Your task to perform on an android device: toggle notifications settings in the gmail app Image 0: 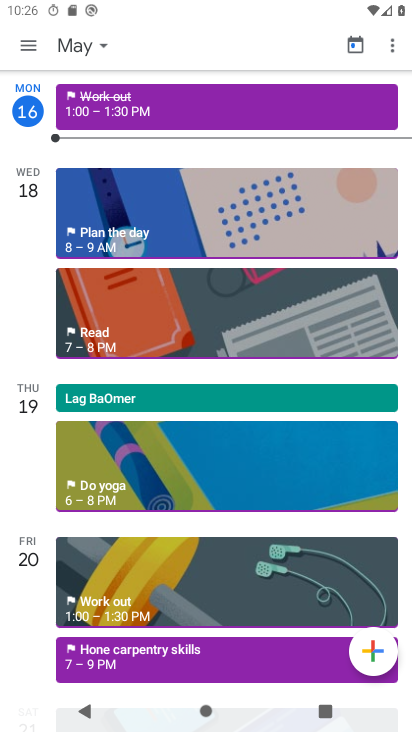
Step 0: press home button
Your task to perform on an android device: toggle notifications settings in the gmail app Image 1: 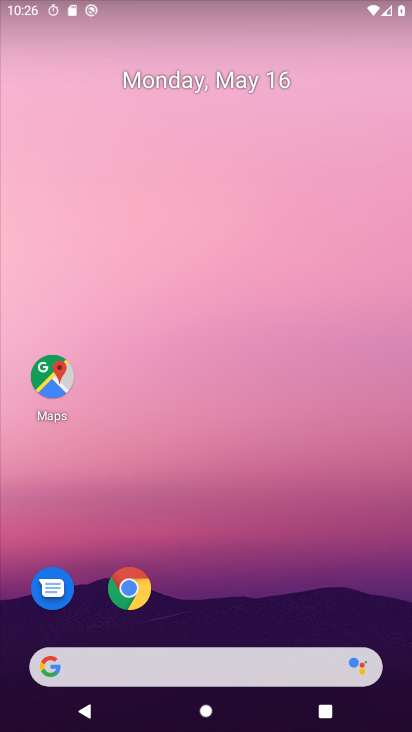
Step 1: drag from (204, 632) to (229, 73)
Your task to perform on an android device: toggle notifications settings in the gmail app Image 2: 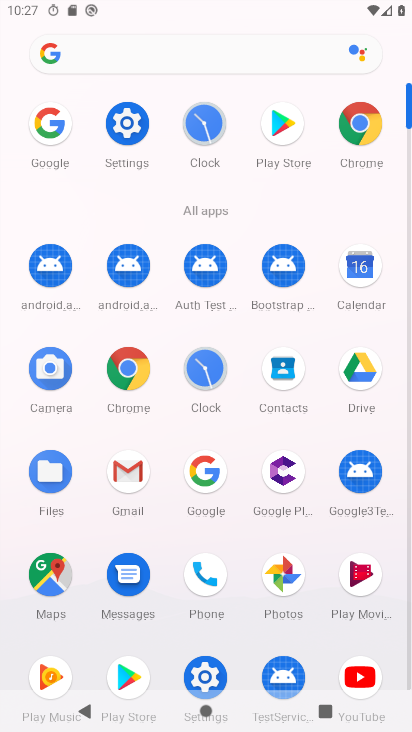
Step 2: click (125, 112)
Your task to perform on an android device: toggle notifications settings in the gmail app Image 3: 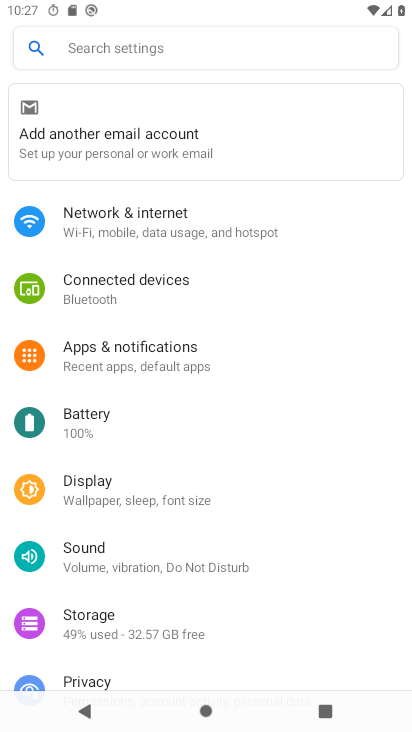
Step 3: click (204, 343)
Your task to perform on an android device: toggle notifications settings in the gmail app Image 4: 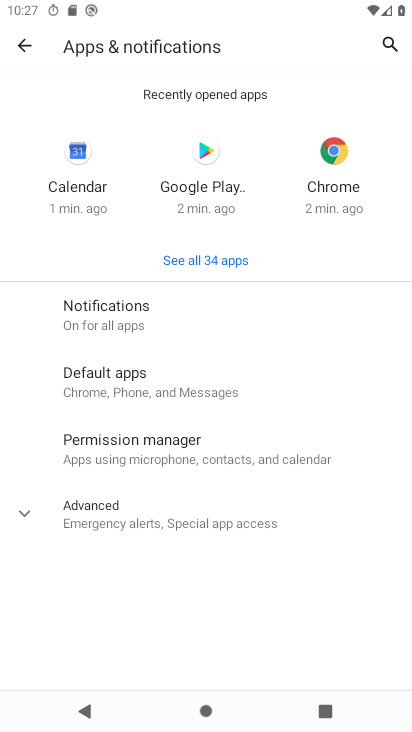
Step 4: click (158, 315)
Your task to perform on an android device: toggle notifications settings in the gmail app Image 5: 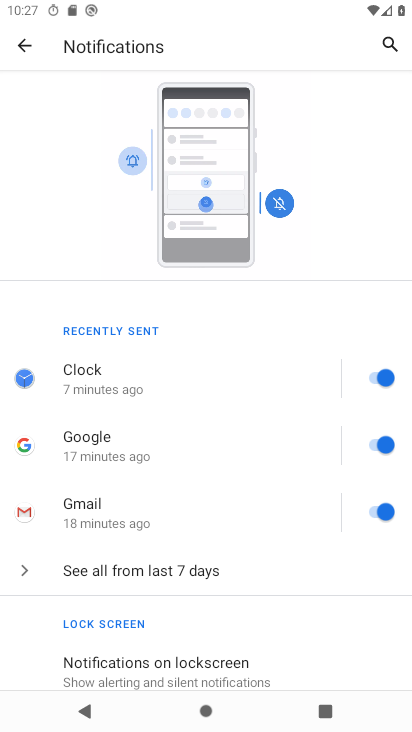
Step 5: drag from (232, 640) to (257, 223)
Your task to perform on an android device: toggle notifications settings in the gmail app Image 6: 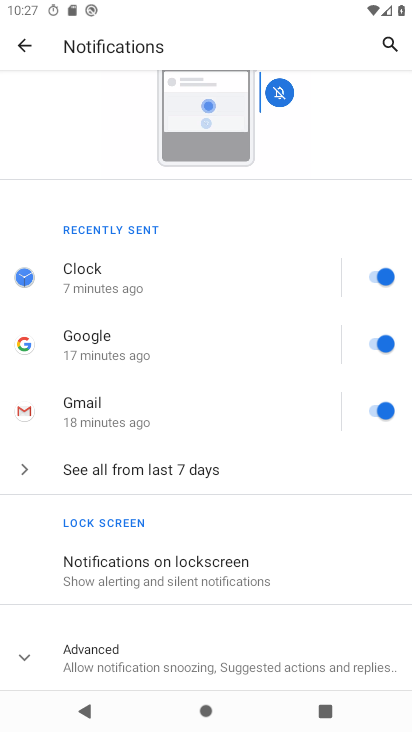
Step 6: click (378, 407)
Your task to perform on an android device: toggle notifications settings in the gmail app Image 7: 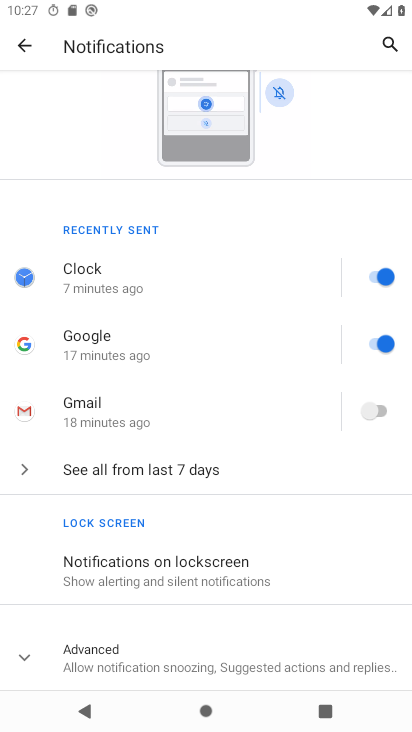
Step 7: task complete